Your task to perform on an android device: move an email to a new category in the gmail app Image 0: 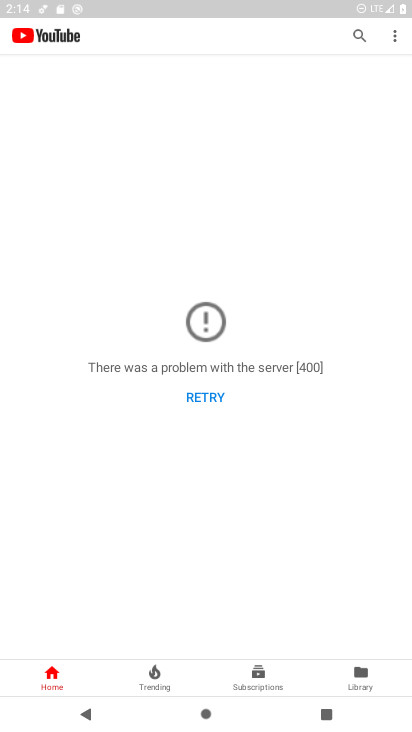
Step 0: press home button
Your task to perform on an android device: move an email to a new category in the gmail app Image 1: 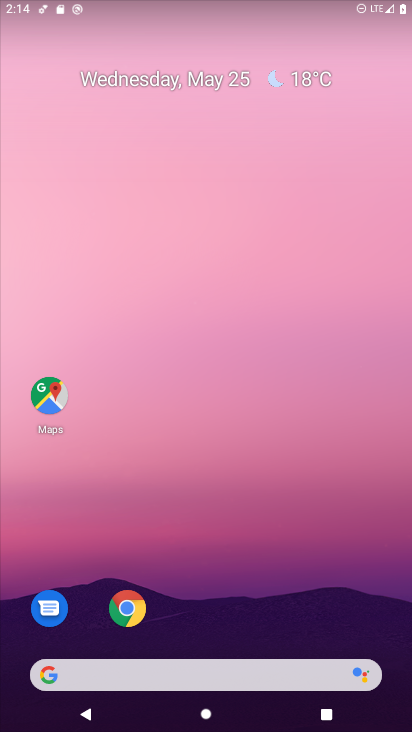
Step 1: drag from (384, 643) to (346, 141)
Your task to perform on an android device: move an email to a new category in the gmail app Image 2: 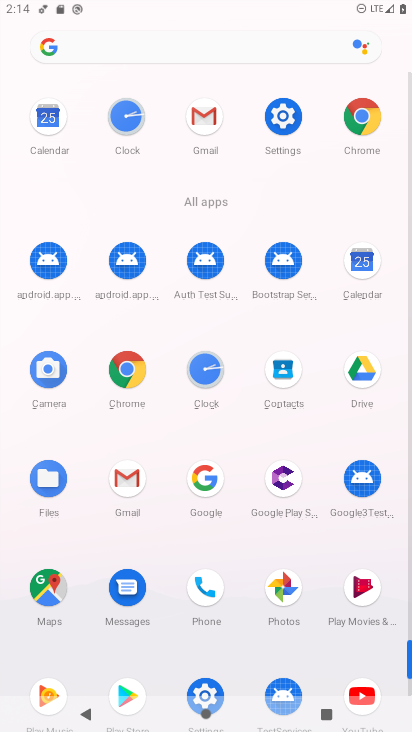
Step 2: click (127, 479)
Your task to perform on an android device: move an email to a new category in the gmail app Image 3: 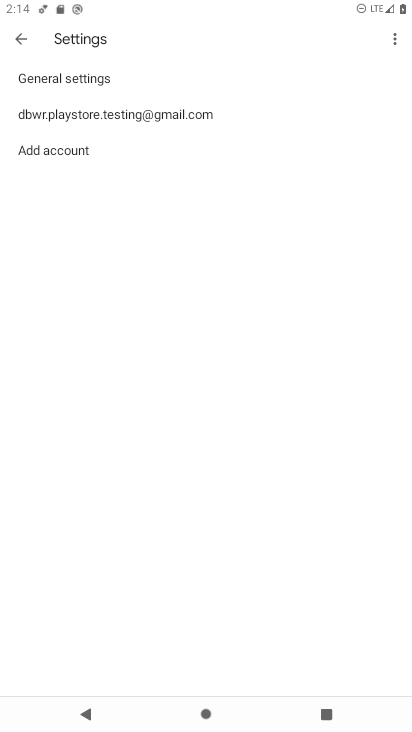
Step 3: press back button
Your task to perform on an android device: move an email to a new category in the gmail app Image 4: 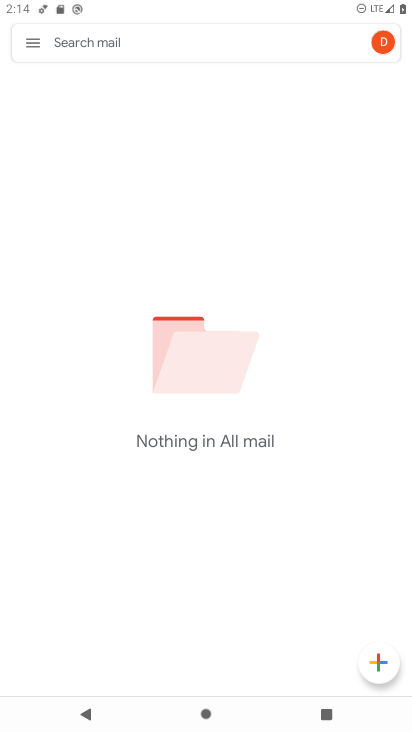
Step 4: click (32, 42)
Your task to perform on an android device: move an email to a new category in the gmail app Image 5: 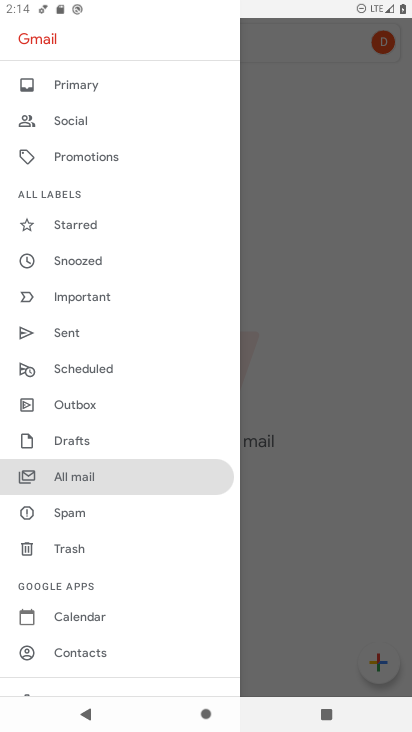
Step 5: click (96, 473)
Your task to perform on an android device: move an email to a new category in the gmail app Image 6: 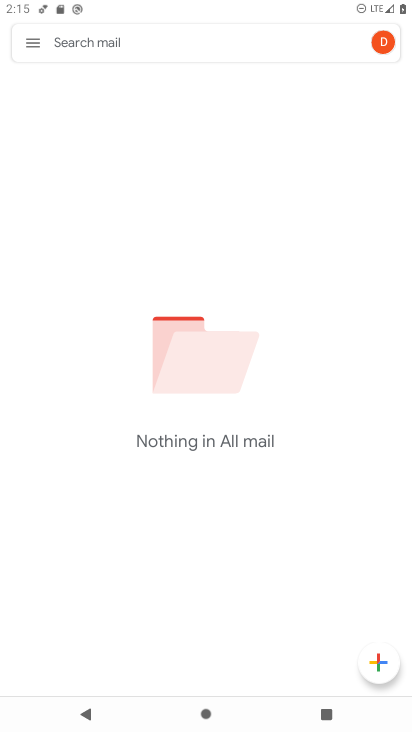
Step 6: task complete